Your task to perform on an android device: all mails in gmail Image 0: 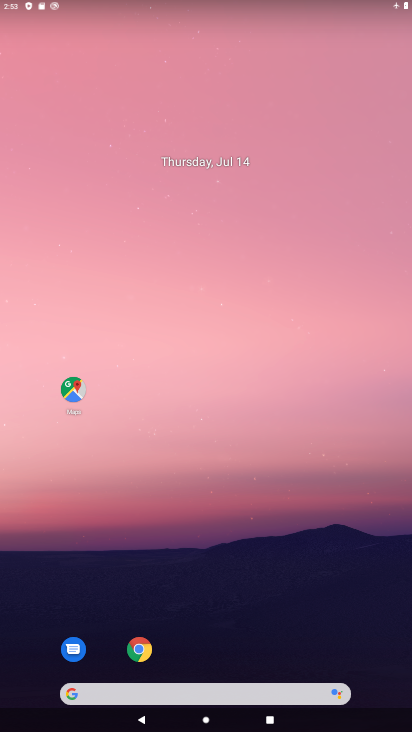
Step 0: drag from (209, 637) to (192, 46)
Your task to perform on an android device: all mails in gmail Image 1: 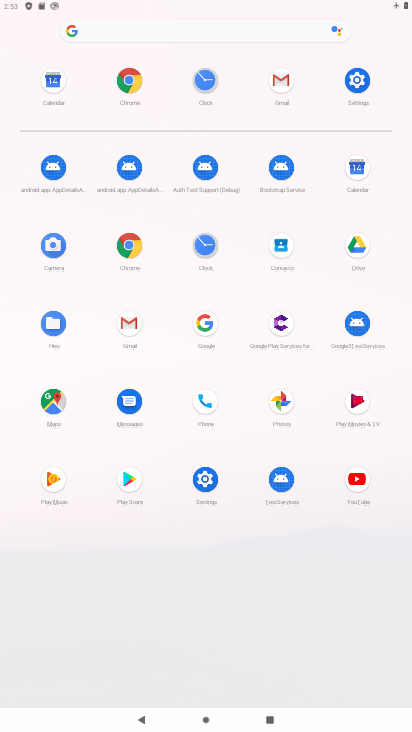
Step 1: click (131, 322)
Your task to perform on an android device: all mails in gmail Image 2: 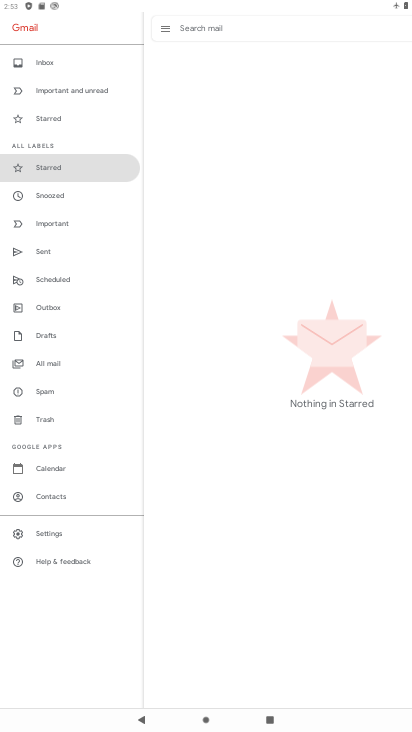
Step 2: click (59, 358)
Your task to perform on an android device: all mails in gmail Image 3: 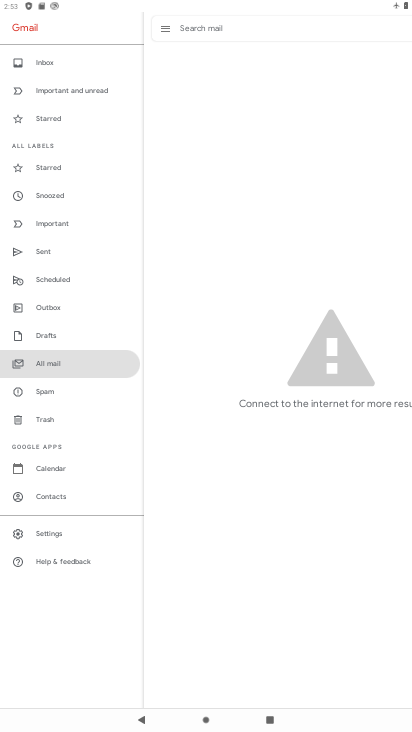
Step 3: task complete